Your task to perform on an android device: set default search engine in the chrome app Image 0: 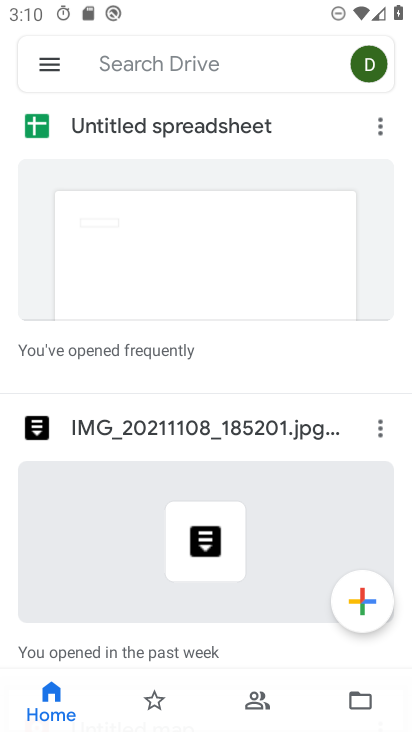
Step 0: press home button
Your task to perform on an android device: set default search engine in the chrome app Image 1: 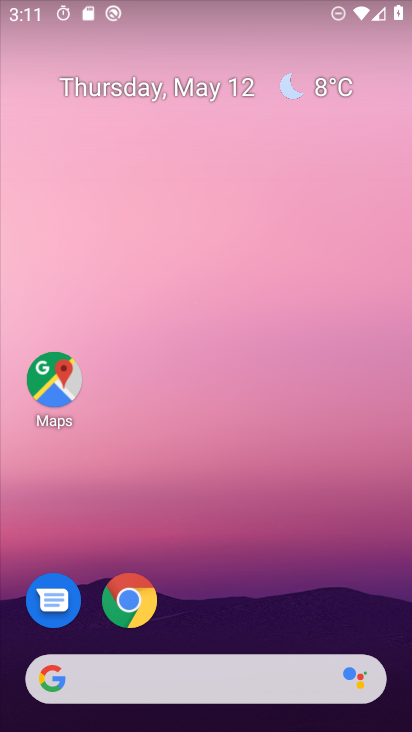
Step 1: click (131, 599)
Your task to perform on an android device: set default search engine in the chrome app Image 2: 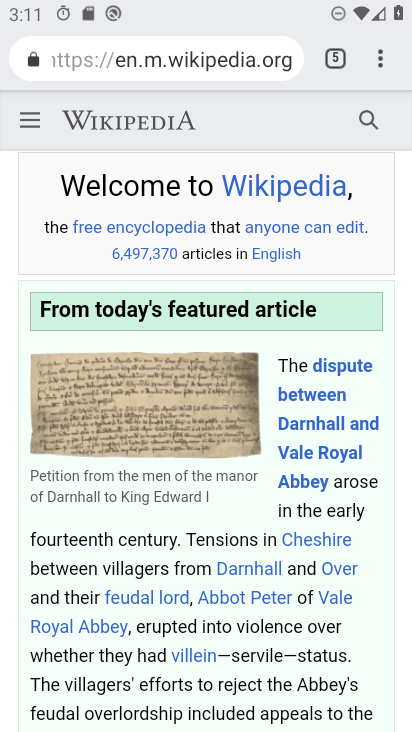
Step 2: click (380, 64)
Your task to perform on an android device: set default search engine in the chrome app Image 3: 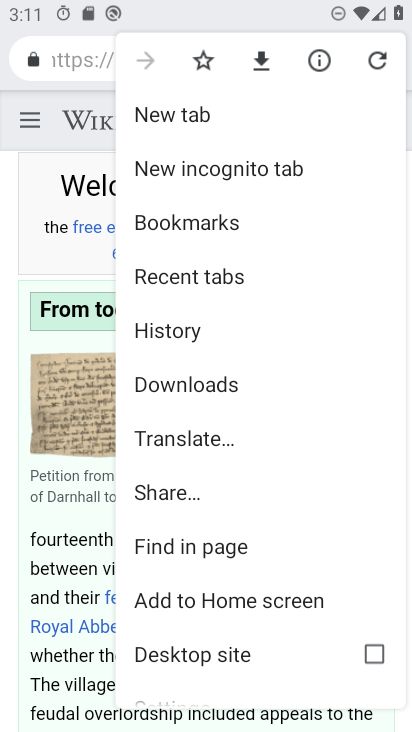
Step 3: drag from (185, 610) to (192, 301)
Your task to perform on an android device: set default search engine in the chrome app Image 4: 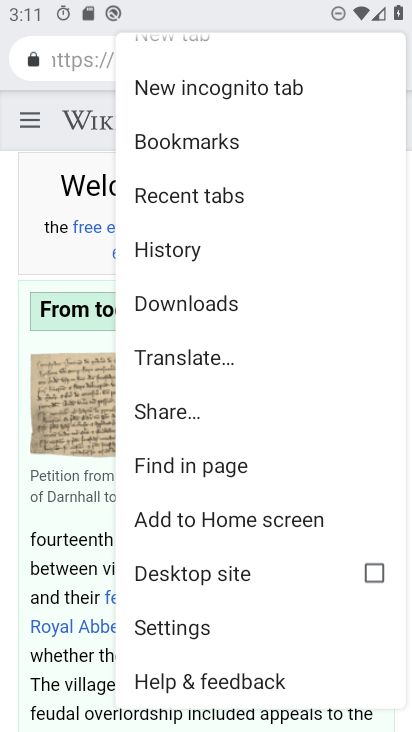
Step 4: click (180, 626)
Your task to perform on an android device: set default search engine in the chrome app Image 5: 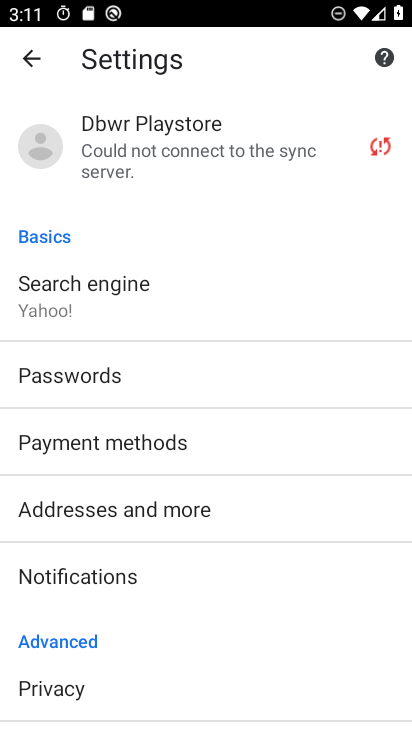
Step 5: click (73, 292)
Your task to perform on an android device: set default search engine in the chrome app Image 6: 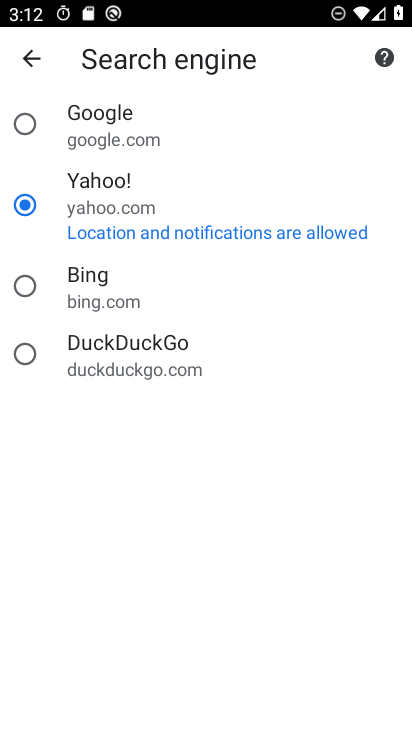
Step 6: click (25, 352)
Your task to perform on an android device: set default search engine in the chrome app Image 7: 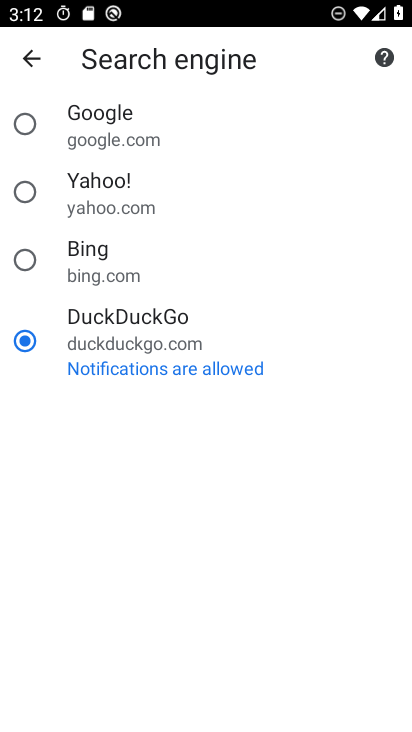
Step 7: task complete